Your task to perform on an android device: turn on the 24-hour format for clock Image 0: 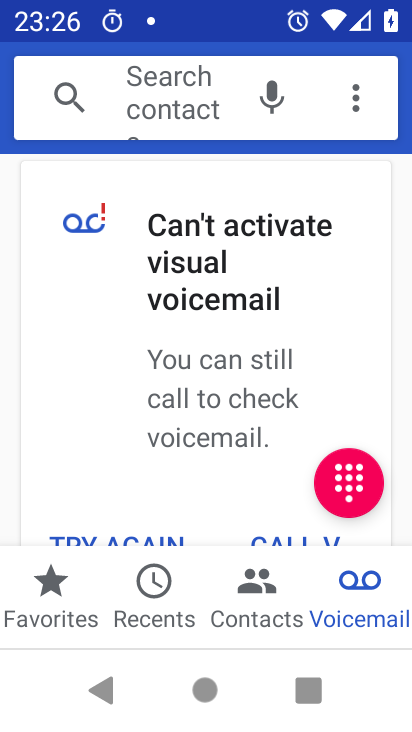
Step 0: press home button
Your task to perform on an android device: turn on the 24-hour format for clock Image 1: 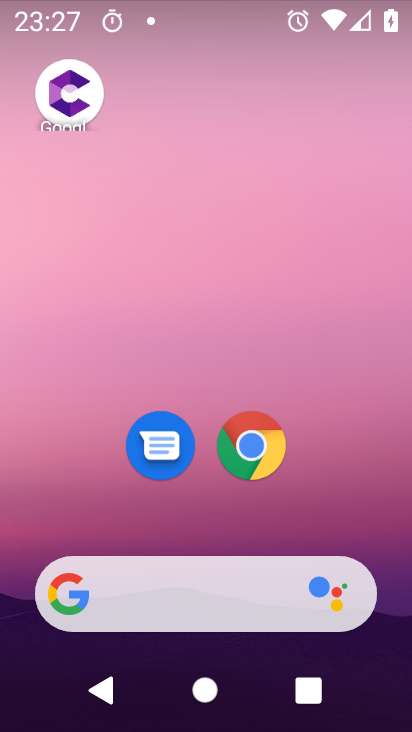
Step 1: drag from (174, 569) to (130, 94)
Your task to perform on an android device: turn on the 24-hour format for clock Image 2: 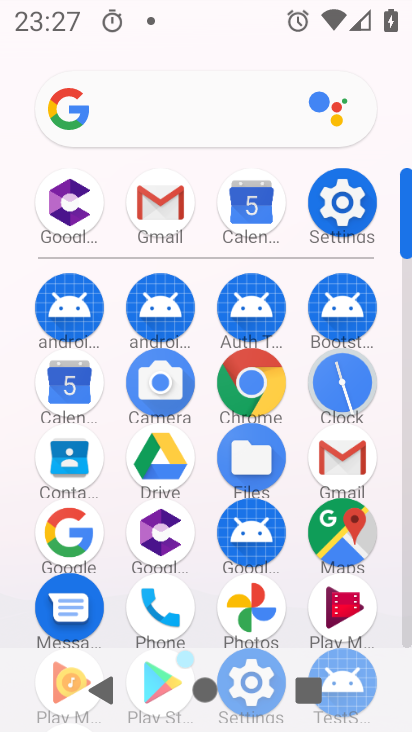
Step 2: click (361, 208)
Your task to perform on an android device: turn on the 24-hour format for clock Image 3: 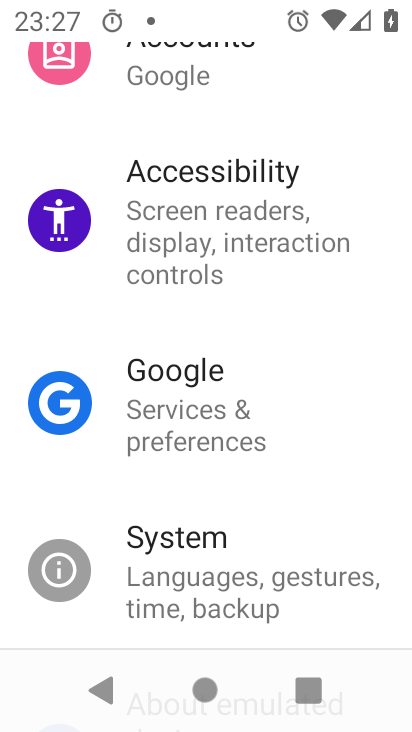
Step 3: click (210, 554)
Your task to perform on an android device: turn on the 24-hour format for clock Image 4: 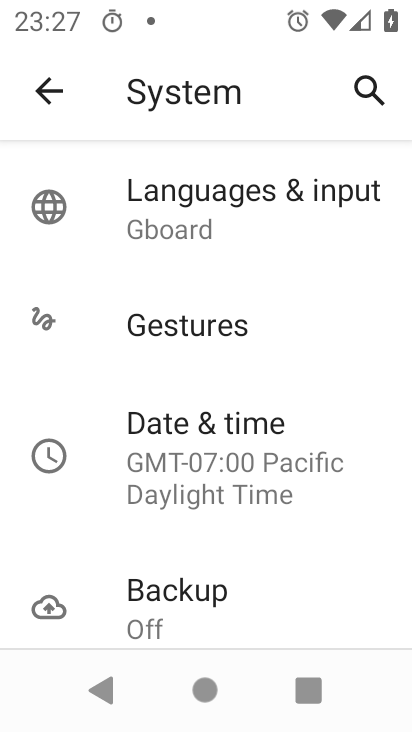
Step 4: click (260, 475)
Your task to perform on an android device: turn on the 24-hour format for clock Image 5: 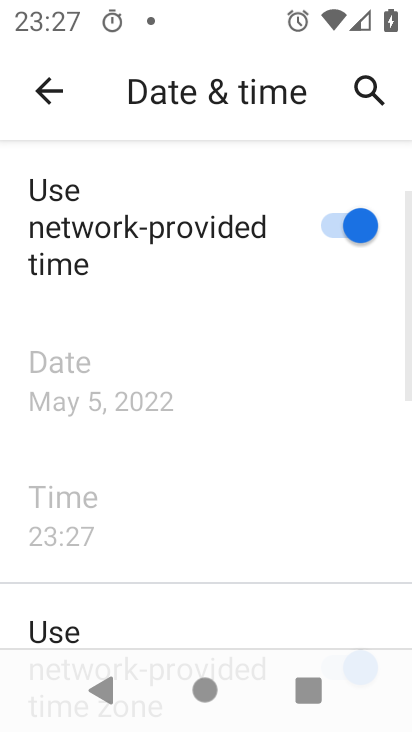
Step 5: task complete